Your task to perform on an android device: change the clock style Image 0: 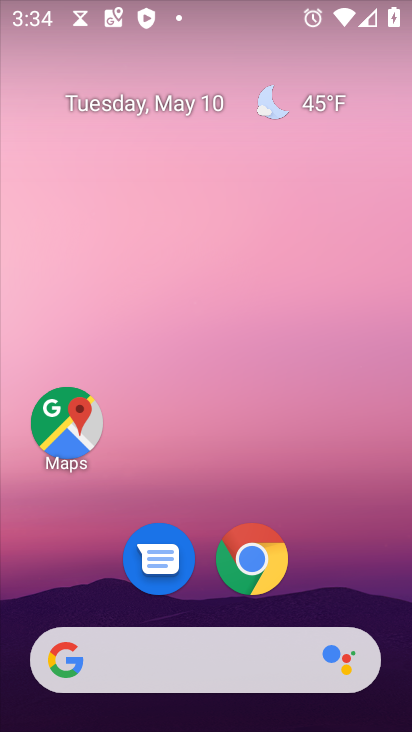
Step 0: drag from (364, 614) to (206, 19)
Your task to perform on an android device: change the clock style Image 1: 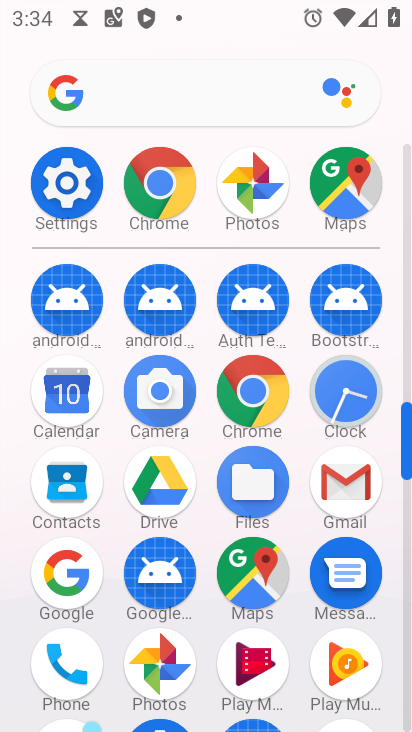
Step 1: click (357, 386)
Your task to perform on an android device: change the clock style Image 2: 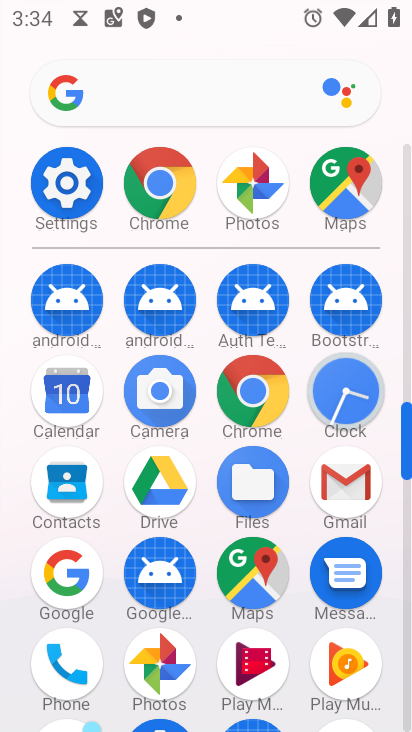
Step 2: click (353, 389)
Your task to perform on an android device: change the clock style Image 3: 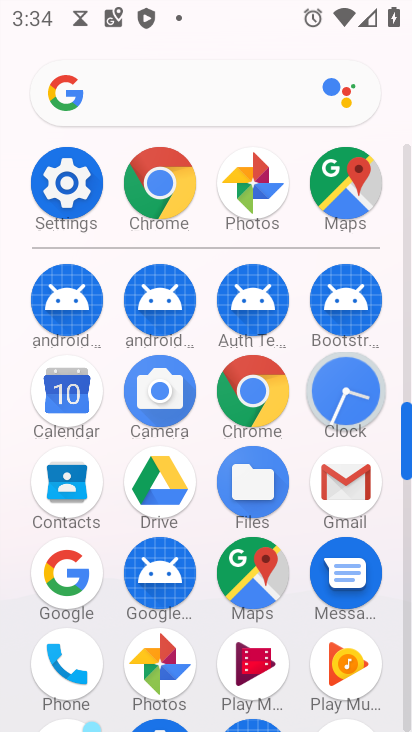
Step 3: click (353, 389)
Your task to perform on an android device: change the clock style Image 4: 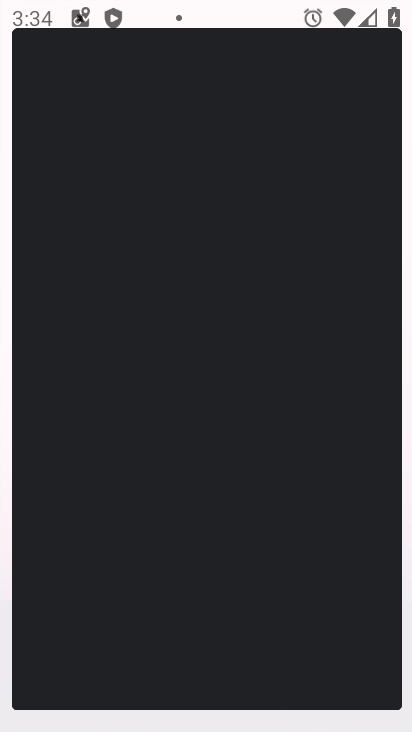
Step 4: click (353, 389)
Your task to perform on an android device: change the clock style Image 5: 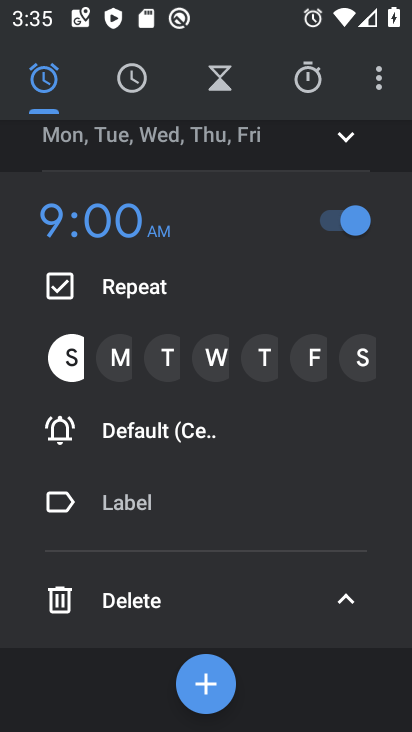
Step 5: click (377, 79)
Your task to perform on an android device: change the clock style Image 6: 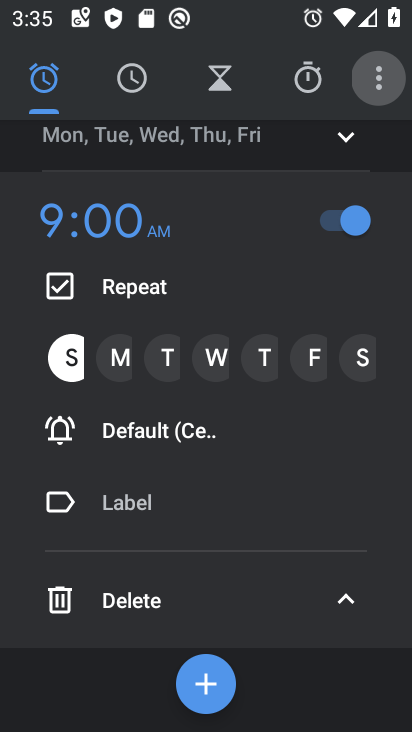
Step 6: click (377, 79)
Your task to perform on an android device: change the clock style Image 7: 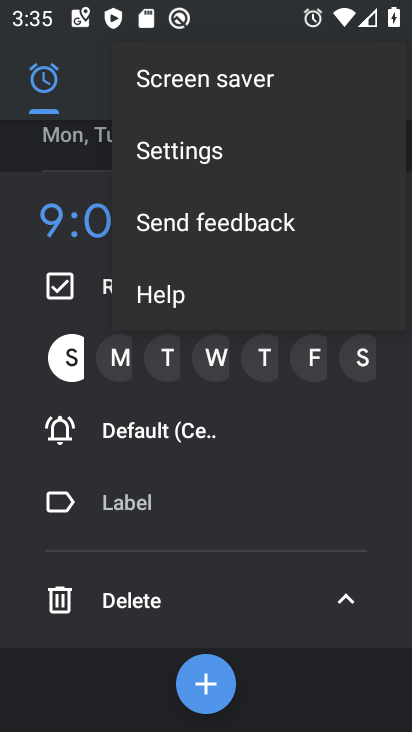
Step 7: click (188, 148)
Your task to perform on an android device: change the clock style Image 8: 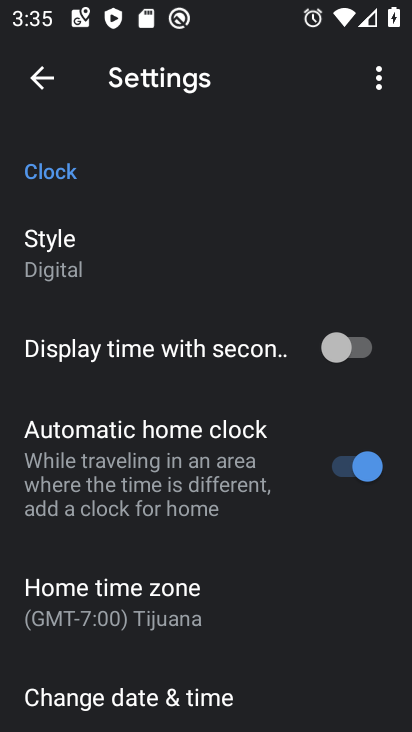
Step 8: click (126, 252)
Your task to perform on an android device: change the clock style Image 9: 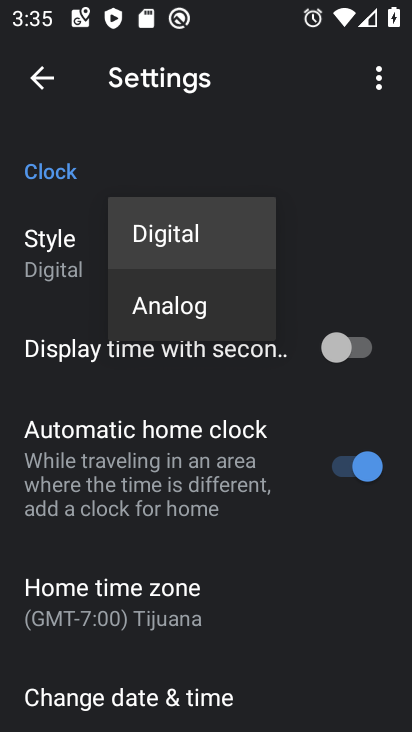
Step 9: click (189, 301)
Your task to perform on an android device: change the clock style Image 10: 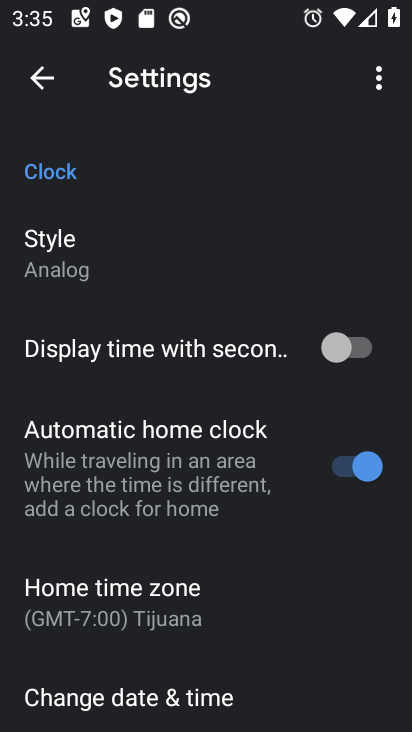
Step 10: task complete